Your task to perform on an android device: Open Yahoo.com Image 0: 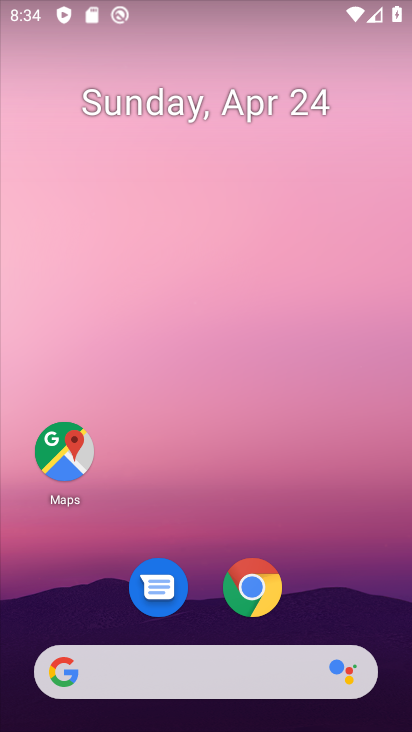
Step 0: click (259, 578)
Your task to perform on an android device: Open Yahoo.com Image 1: 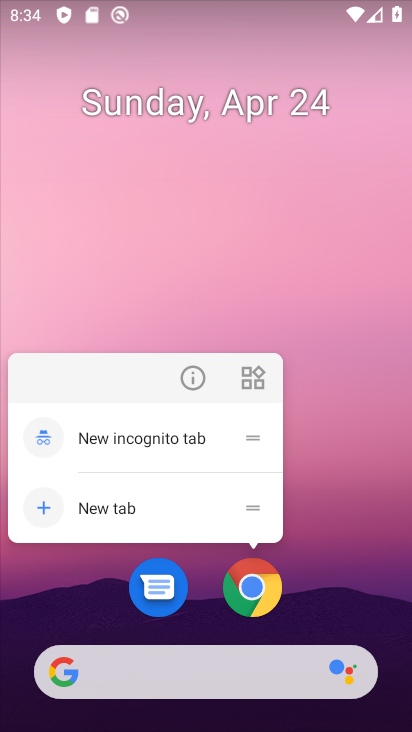
Step 1: click (254, 589)
Your task to perform on an android device: Open Yahoo.com Image 2: 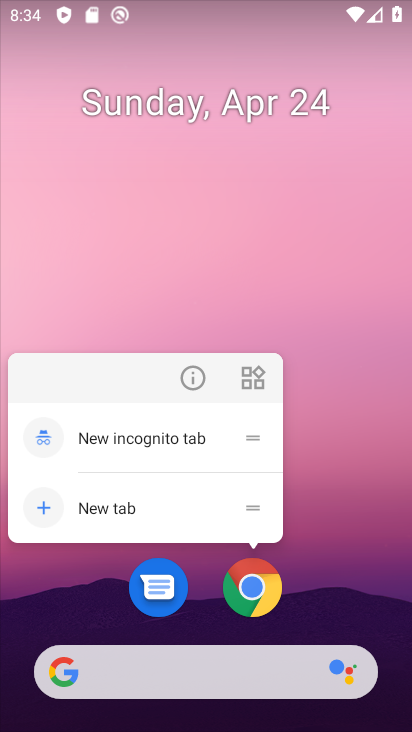
Step 2: click (254, 589)
Your task to perform on an android device: Open Yahoo.com Image 3: 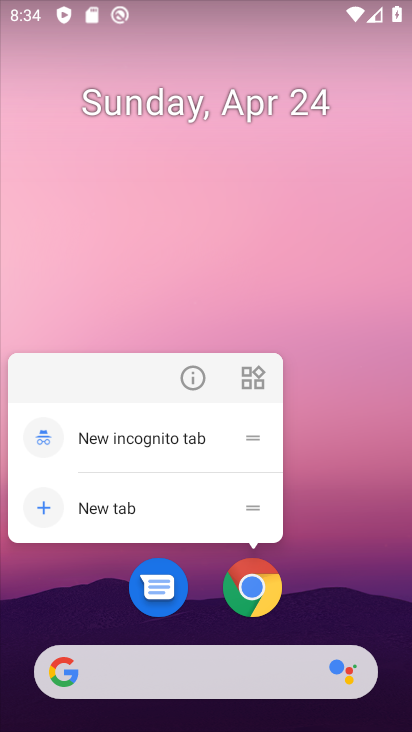
Step 3: click (261, 587)
Your task to perform on an android device: Open Yahoo.com Image 4: 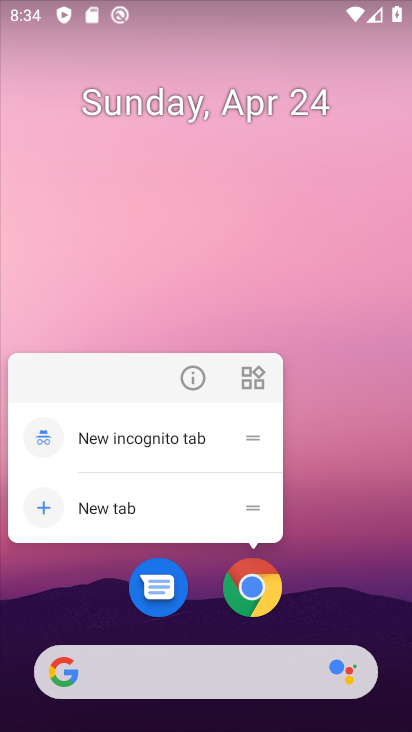
Step 4: click (255, 585)
Your task to perform on an android device: Open Yahoo.com Image 5: 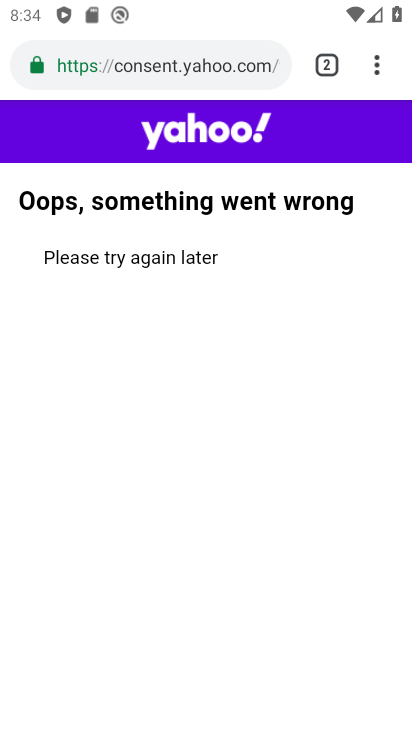
Step 5: task complete